Your task to perform on an android device: check android version Image 0: 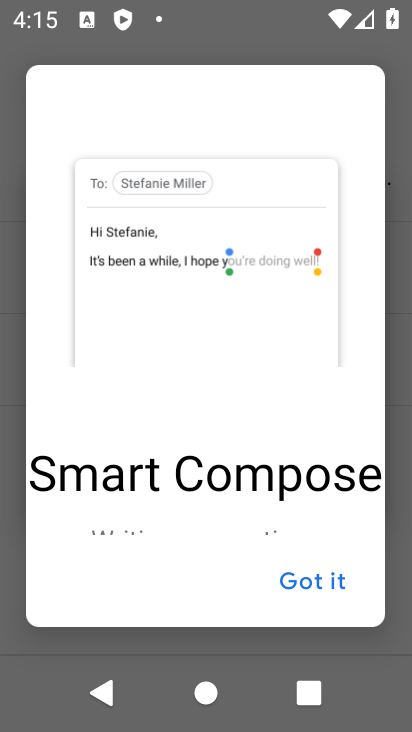
Step 0: press home button
Your task to perform on an android device: check android version Image 1: 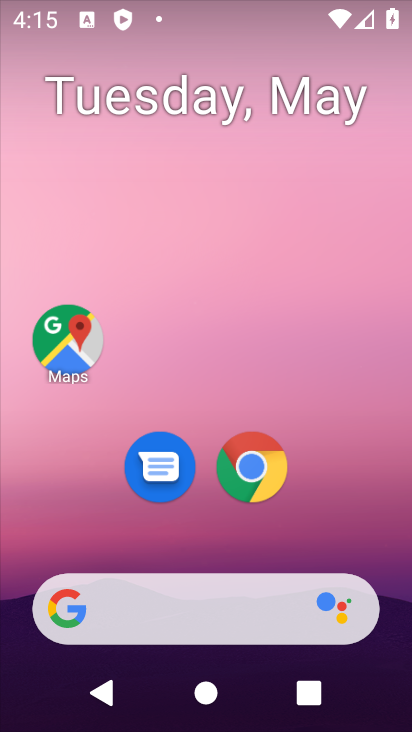
Step 1: drag from (355, 513) to (291, 91)
Your task to perform on an android device: check android version Image 2: 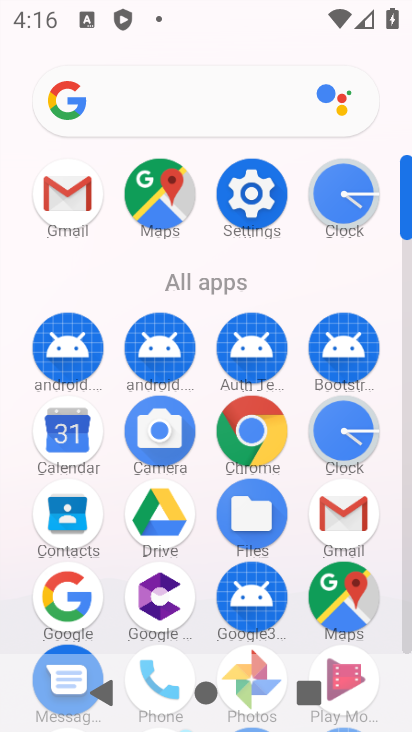
Step 2: click (255, 185)
Your task to perform on an android device: check android version Image 3: 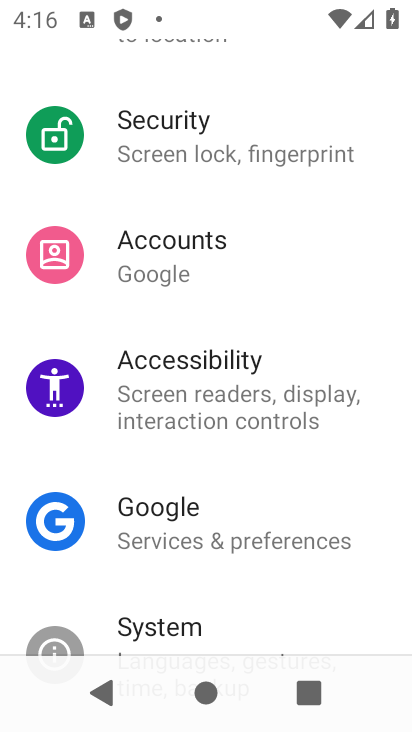
Step 3: drag from (354, 627) to (292, 205)
Your task to perform on an android device: check android version Image 4: 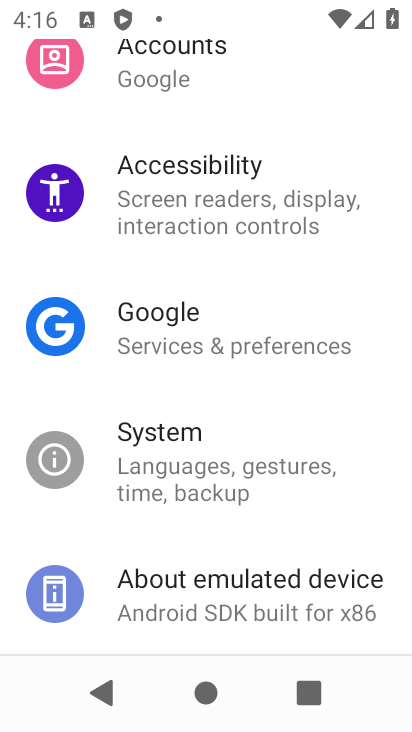
Step 4: click (303, 599)
Your task to perform on an android device: check android version Image 5: 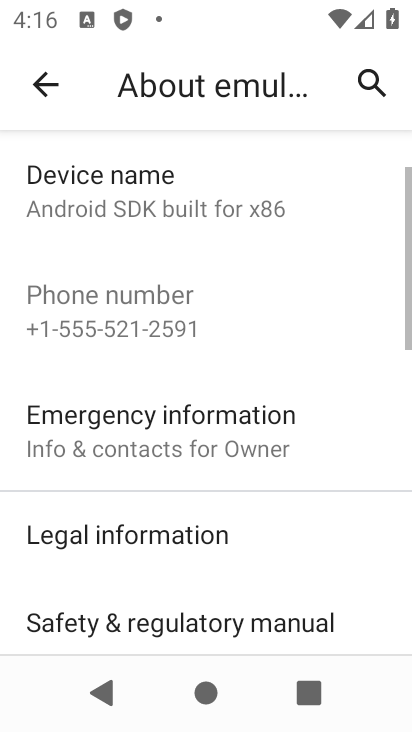
Step 5: task complete